Your task to perform on an android device: Open the stopwatch Image 0: 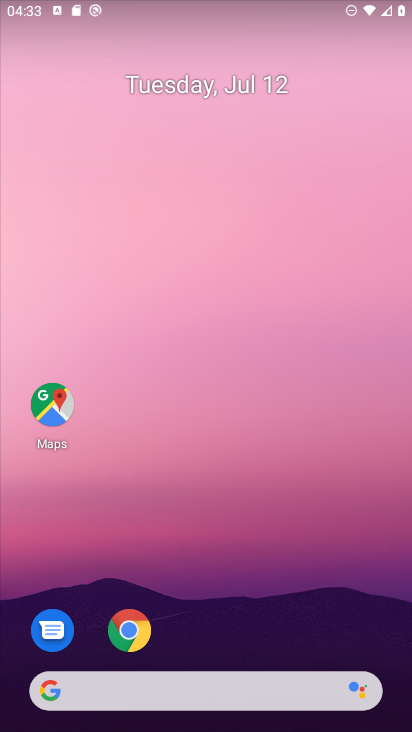
Step 0: drag from (386, 647) to (340, 208)
Your task to perform on an android device: Open the stopwatch Image 1: 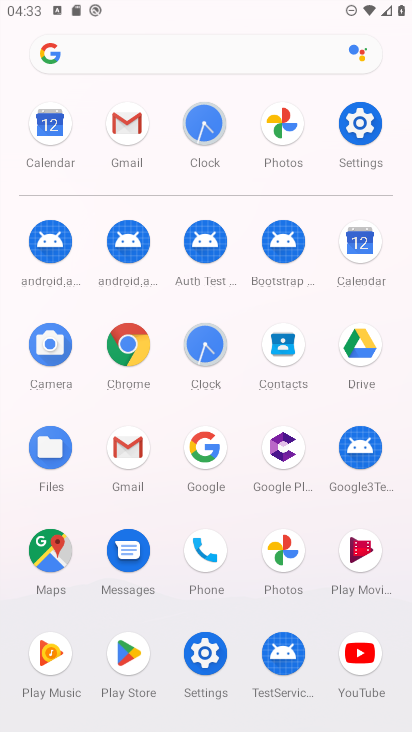
Step 1: click (205, 343)
Your task to perform on an android device: Open the stopwatch Image 2: 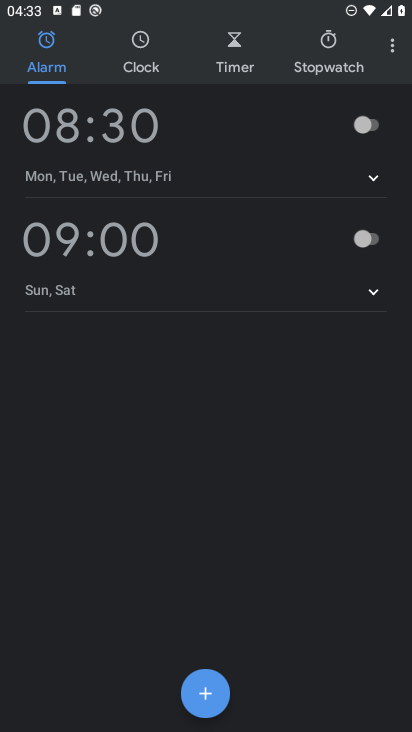
Step 2: click (330, 46)
Your task to perform on an android device: Open the stopwatch Image 3: 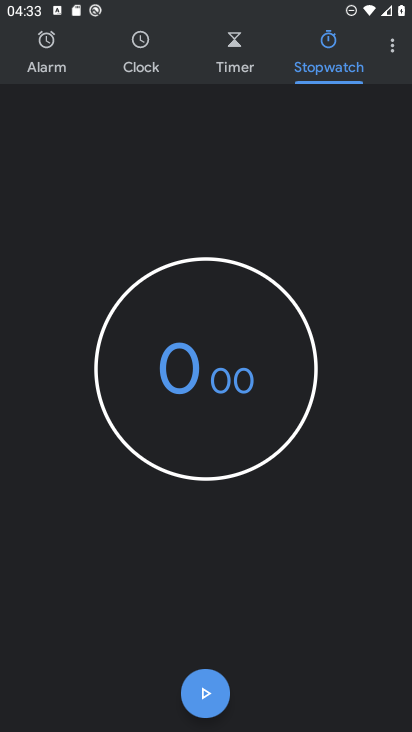
Step 3: task complete